Your task to perform on an android device: Open calendar and show me the third week of next month Image 0: 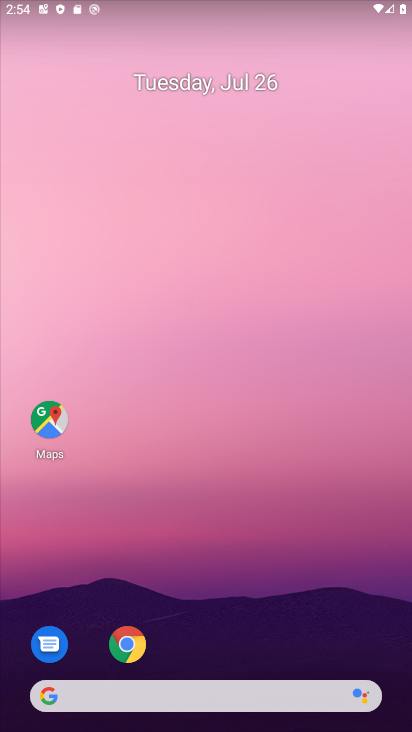
Step 0: press home button
Your task to perform on an android device: Open calendar and show me the third week of next month Image 1: 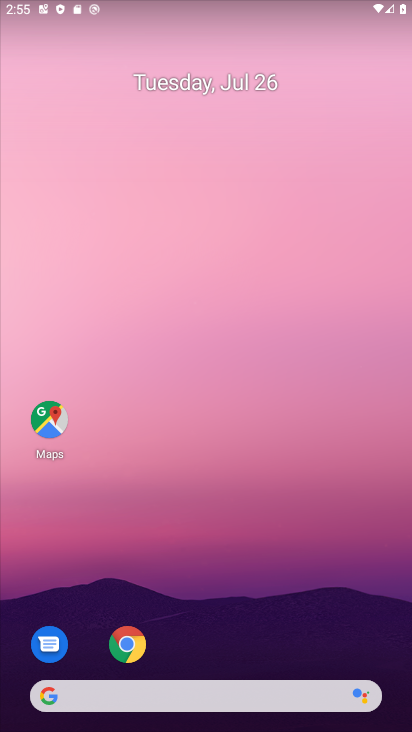
Step 1: press home button
Your task to perform on an android device: Open calendar and show me the third week of next month Image 2: 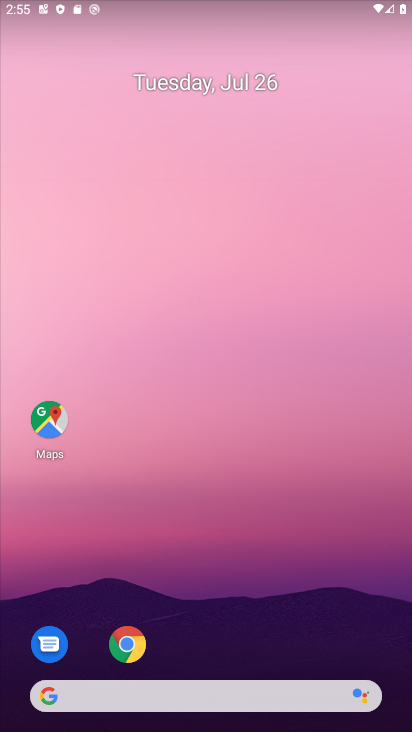
Step 2: drag from (285, 612) to (256, 109)
Your task to perform on an android device: Open calendar and show me the third week of next month Image 3: 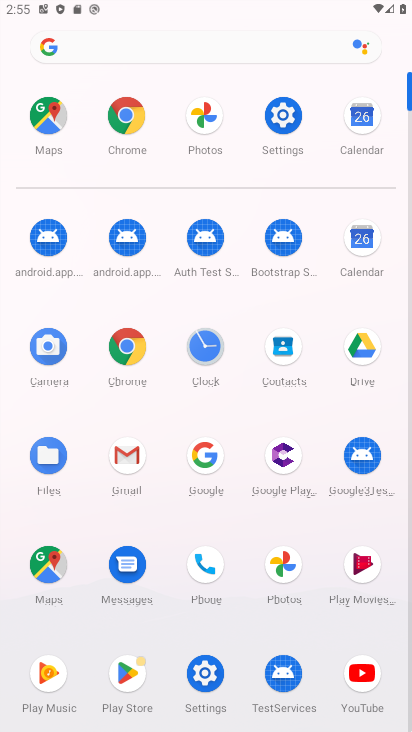
Step 3: click (351, 239)
Your task to perform on an android device: Open calendar and show me the third week of next month Image 4: 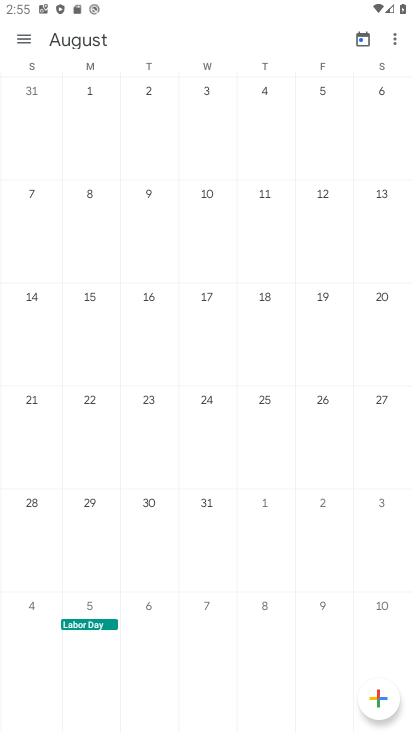
Step 4: click (24, 32)
Your task to perform on an android device: Open calendar and show me the third week of next month Image 5: 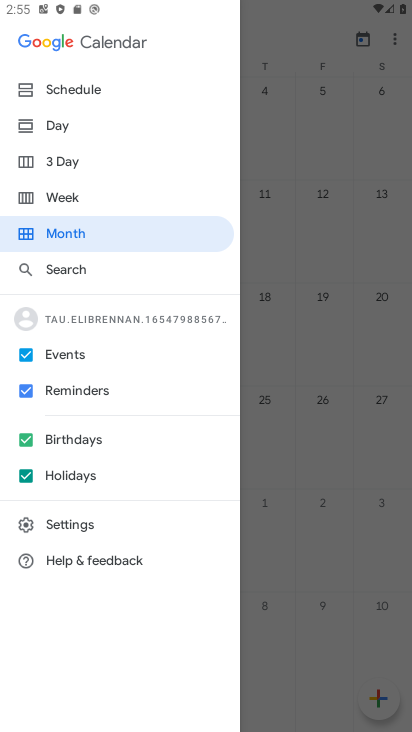
Step 5: click (63, 192)
Your task to perform on an android device: Open calendar and show me the third week of next month Image 6: 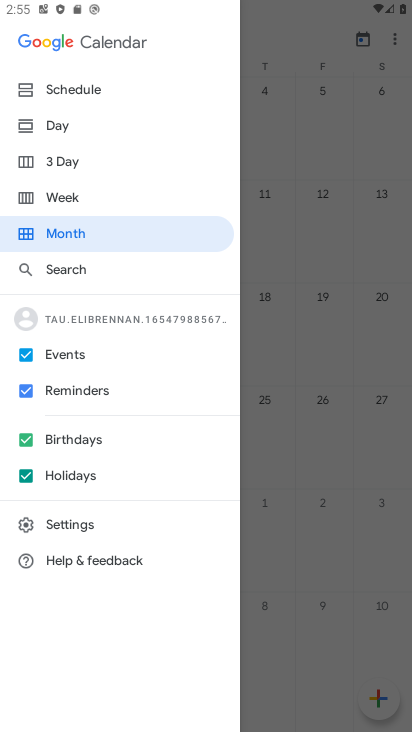
Step 6: click (84, 200)
Your task to perform on an android device: Open calendar and show me the third week of next month Image 7: 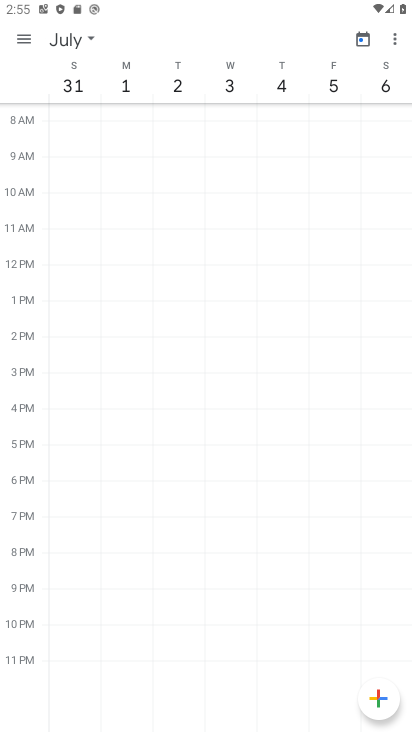
Step 7: task complete